Your task to perform on an android device: Go to calendar. Show me events next week Image 0: 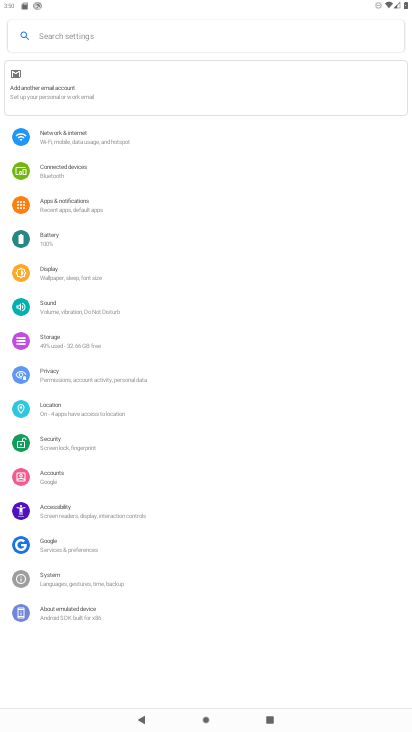
Step 0: press home button
Your task to perform on an android device: Go to calendar. Show me events next week Image 1: 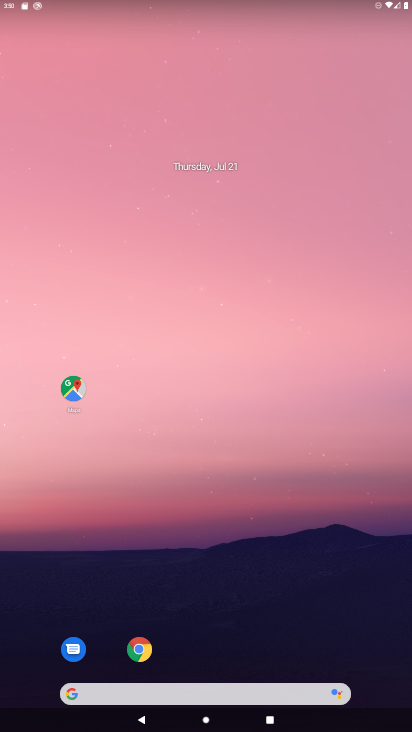
Step 1: drag from (222, 658) to (222, 270)
Your task to perform on an android device: Go to calendar. Show me events next week Image 2: 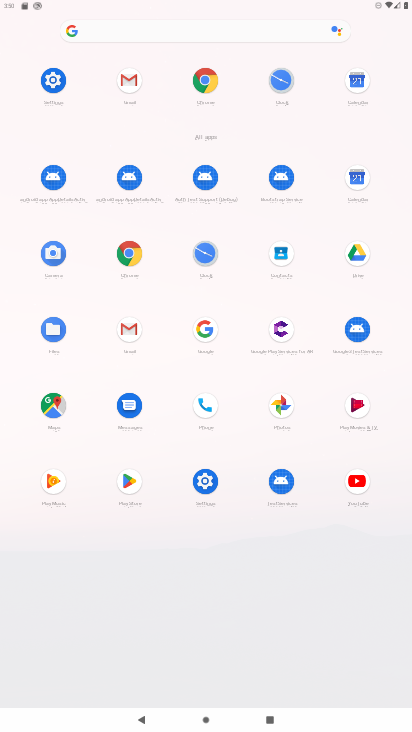
Step 2: click (361, 180)
Your task to perform on an android device: Go to calendar. Show me events next week Image 3: 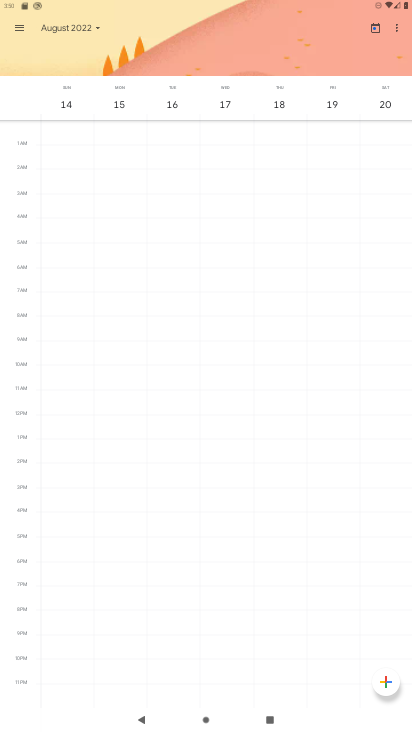
Step 3: click (61, 30)
Your task to perform on an android device: Go to calendar. Show me events next week Image 4: 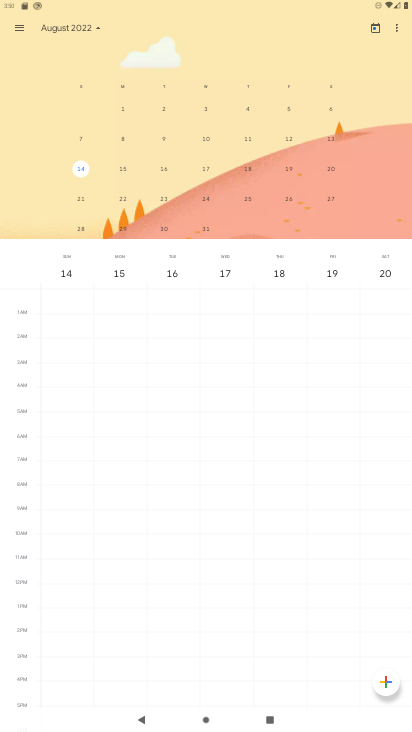
Step 4: drag from (60, 121) to (363, 175)
Your task to perform on an android device: Go to calendar. Show me events next week Image 5: 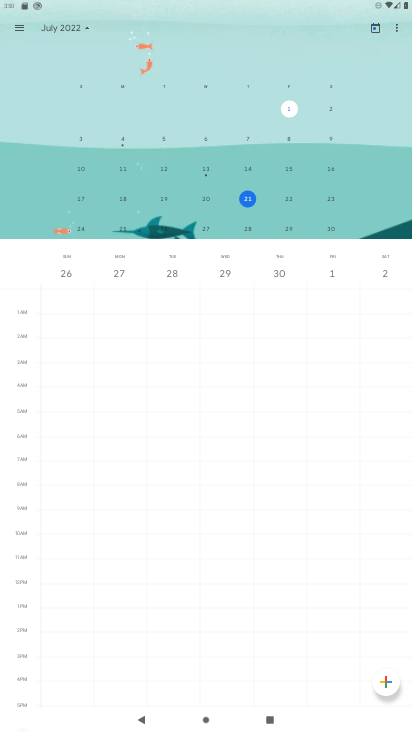
Step 5: click (77, 226)
Your task to perform on an android device: Go to calendar. Show me events next week Image 6: 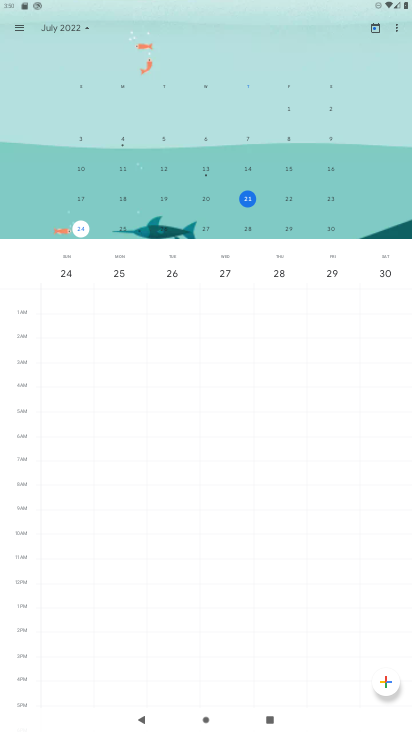
Step 6: task complete